Your task to perform on an android device: Open battery settings Image 0: 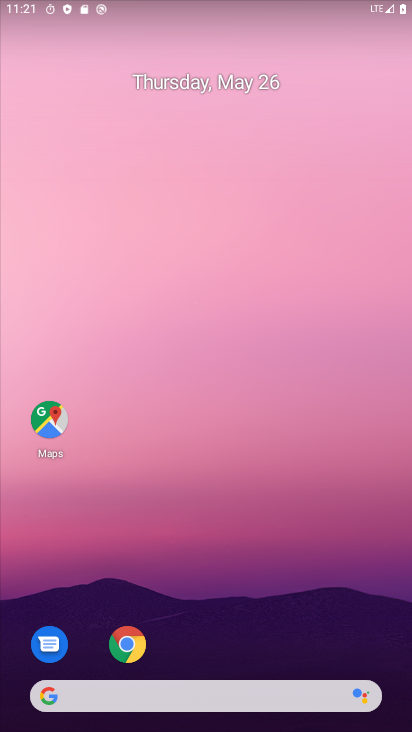
Step 0: drag from (123, 724) to (105, 24)
Your task to perform on an android device: Open battery settings Image 1: 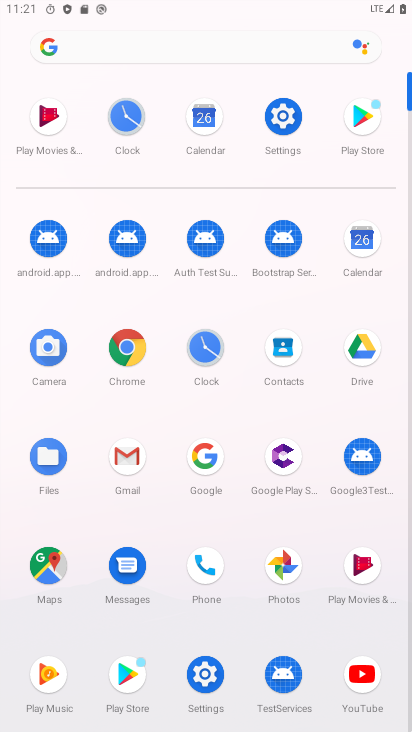
Step 1: click (292, 114)
Your task to perform on an android device: Open battery settings Image 2: 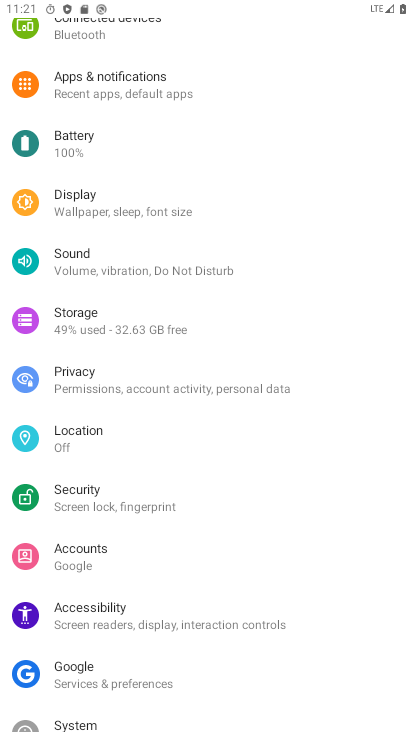
Step 2: click (126, 154)
Your task to perform on an android device: Open battery settings Image 3: 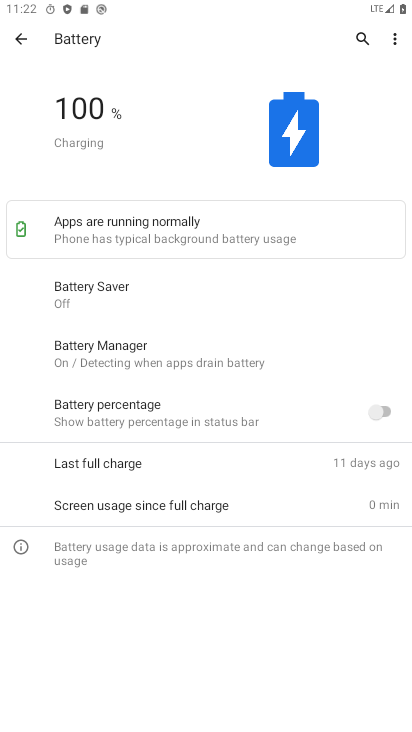
Step 3: task complete